Your task to perform on an android device: uninstall "Move to iOS" Image 0: 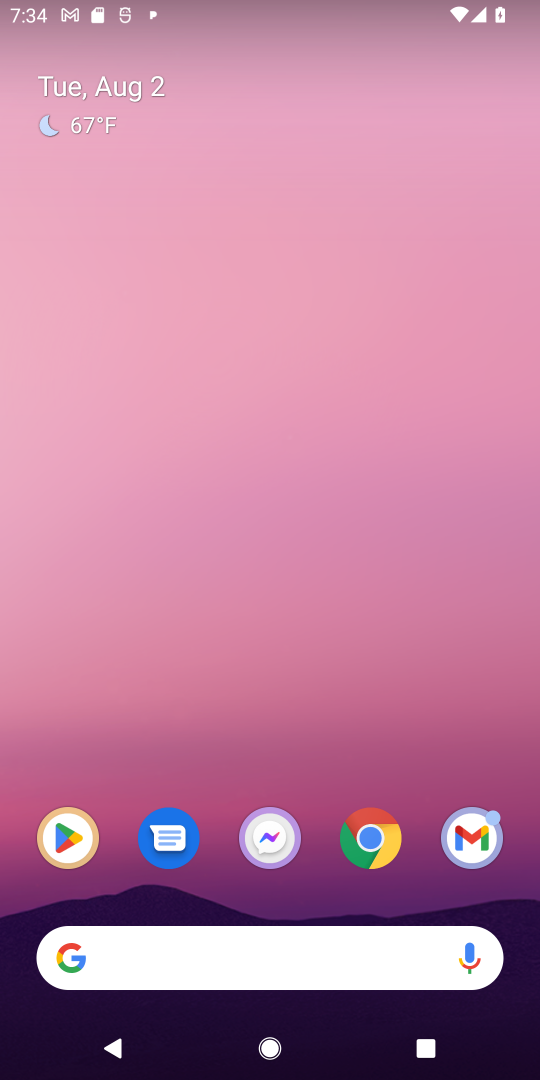
Step 0: click (64, 835)
Your task to perform on an android device: uninstall "Move to iOS" Image 1: 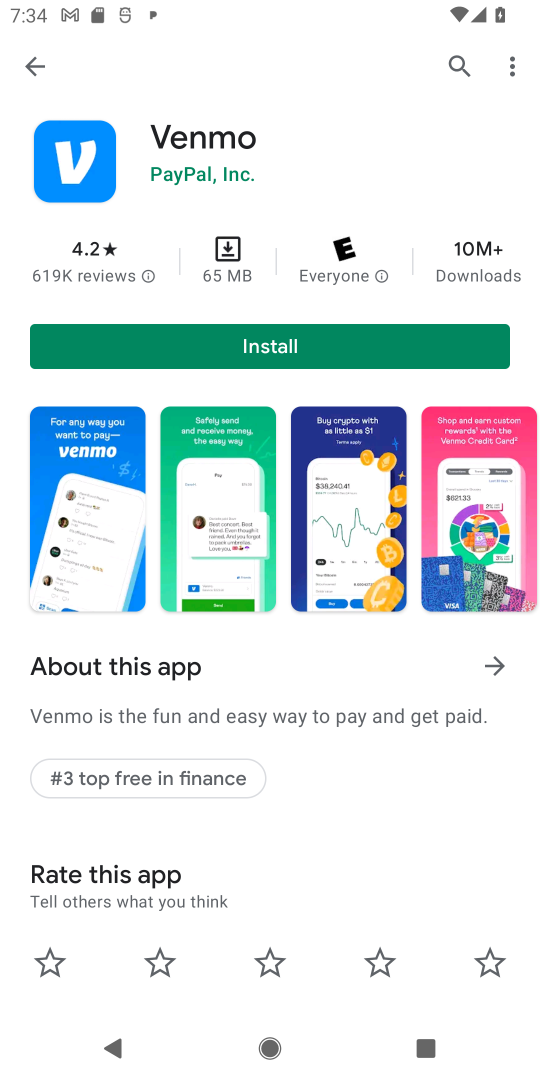
Step 1: click (462, 55)
Your task to perform on an android device: uninstall "Move to iOS" Image 2: 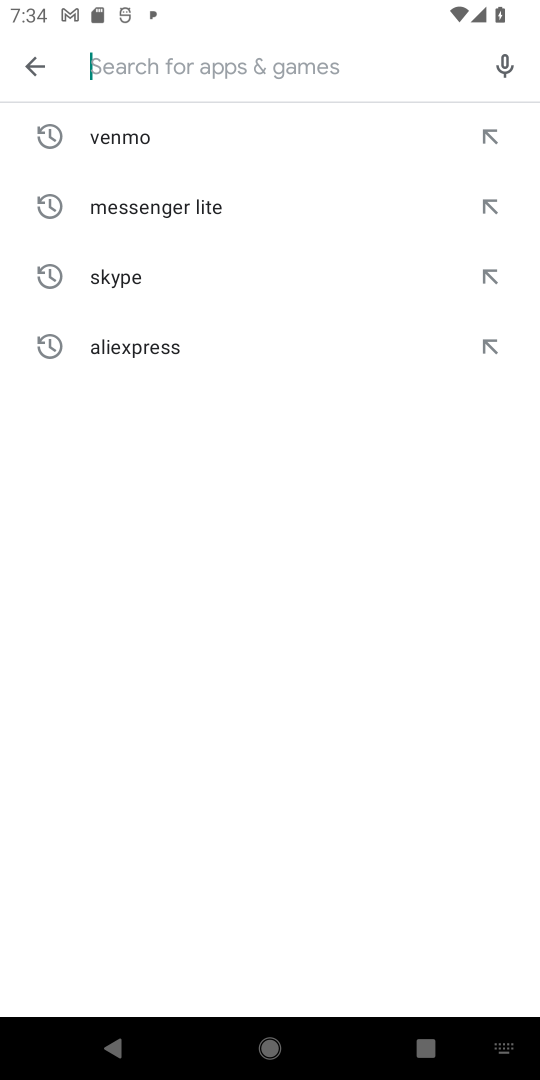
Step 2: type "move to ios"
Your task to perform on an android device: uninstall "Move to iOS" Image 3: 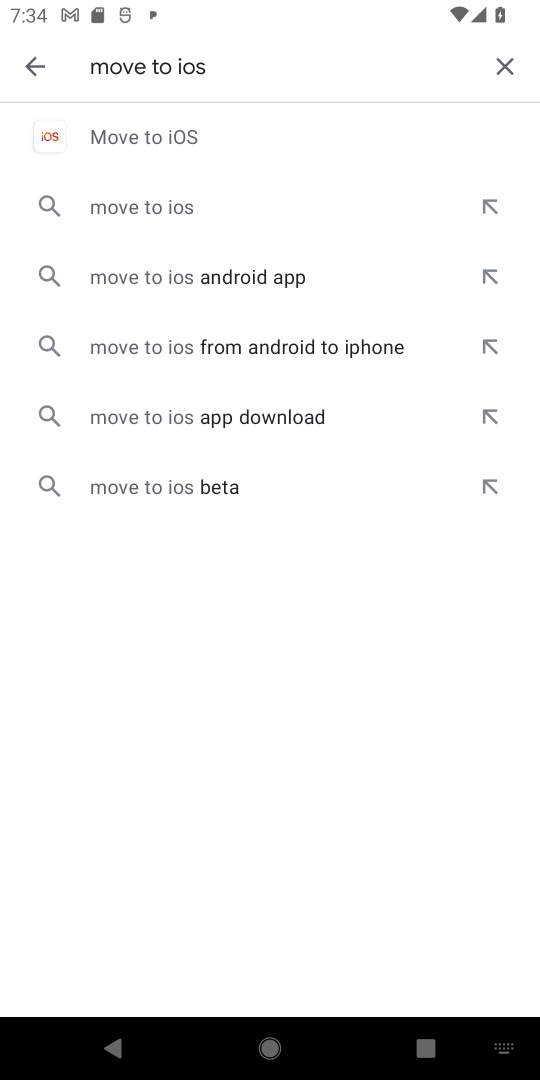
Step 3: click (56, 132)
Your task to perform on an android device: uninstall "Move to iOS" Image 4: 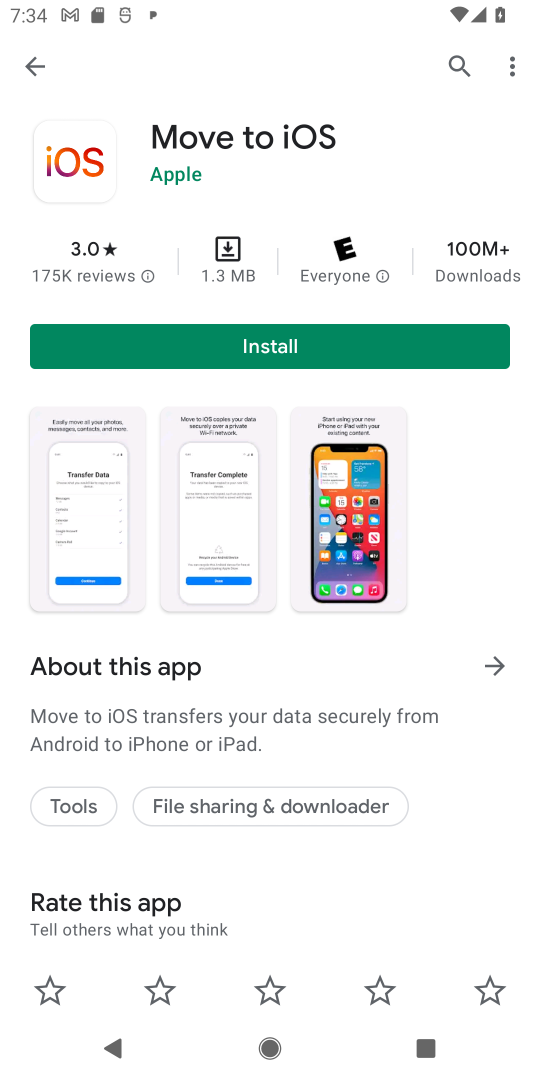
Step 4: task complete